Your task to perform on an android device: choose inbox layout in the gmail app Image 0: 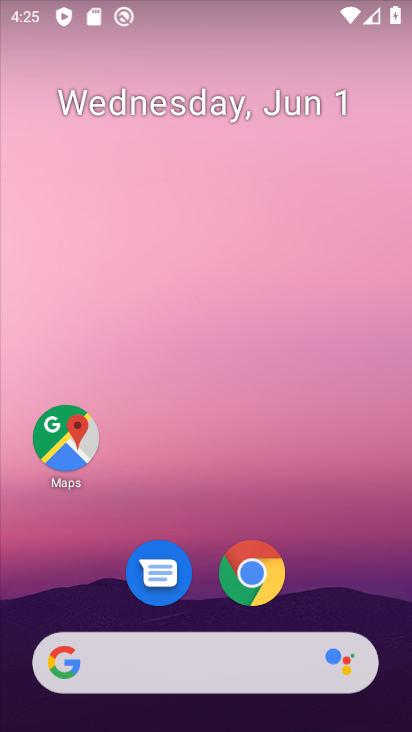
Step 0: drag from (107, 597) to (211, 166)
Your task to perform on an android device: choose inbox layout in the gmail app Image 1: 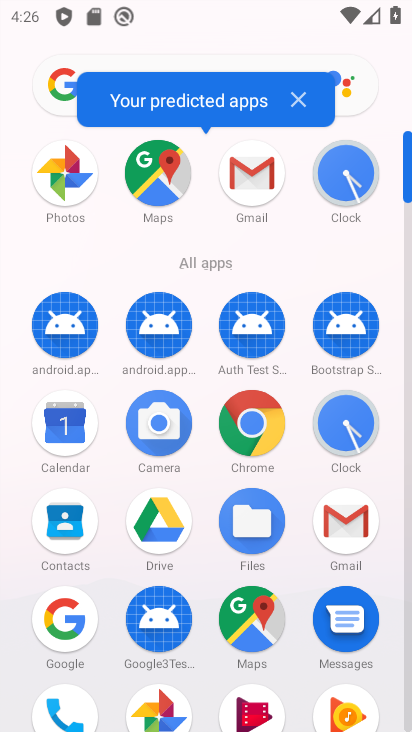
Step 1: click (350, 535)
Your task to perform on an android device: choose inbox layout in the gmail app Image 2: 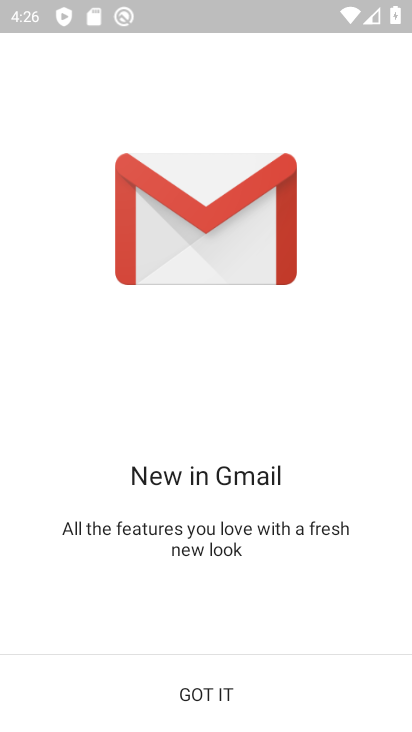
Step 2: click (262, 705)
Your task to perform on an android device: choose inbox layout in the gmail app Image 3: 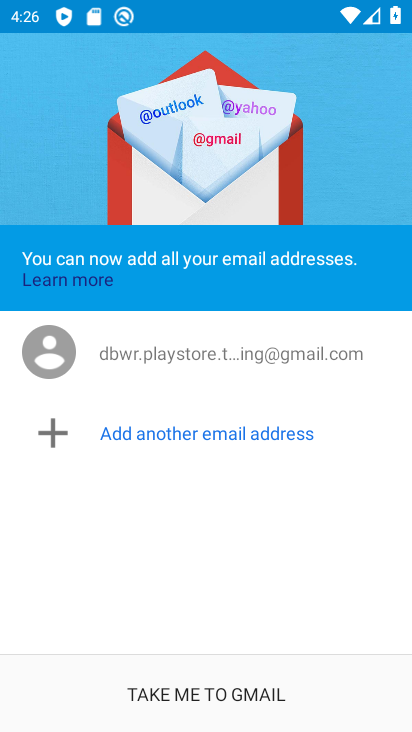
Step 3: click (262, 704)
Your task to perform on an android device: choose inbox layout in the gmail app Image 4: 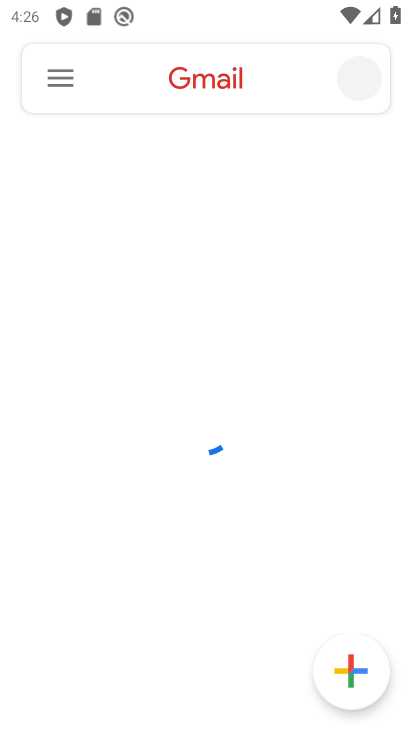
Step 4: click (69, 94)
Your task to perform on an android device: choose inbox layout in the gmail app Image 5: 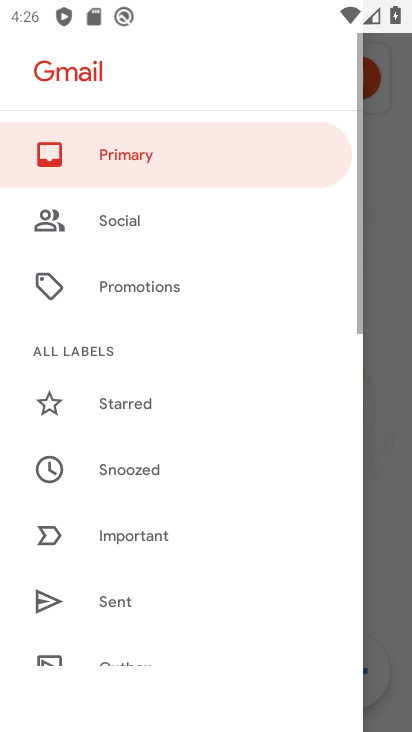
Step 5: drag from (158, 474) to (275, 148)
Your task to perform on an android device: choose inbox layout in the gmail app Image 6: 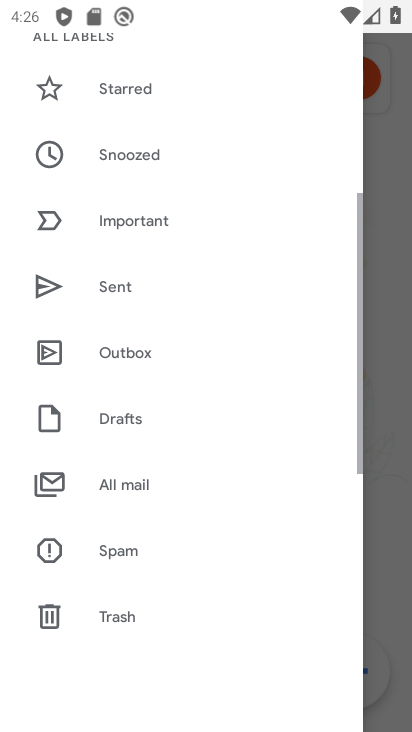
Step 6: drag from (182, 604) to (287, 170)
Your task to perform on an android device: choose inbox layout in the gmail app Image 7: 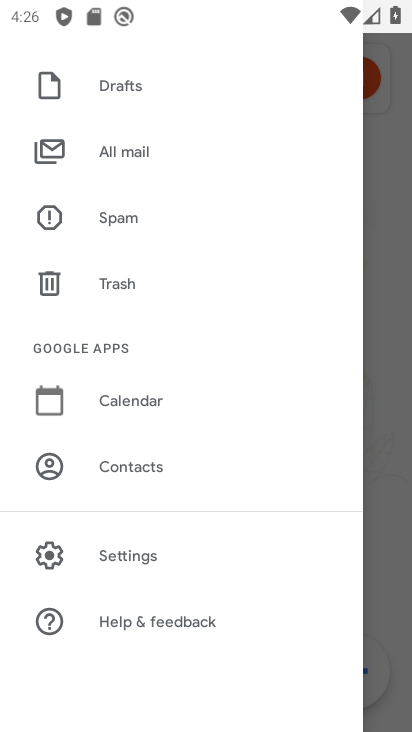
Step 7: click (159, 568)
Your task to perform on an android device: choose inbox layout in the gmail app Image 8: 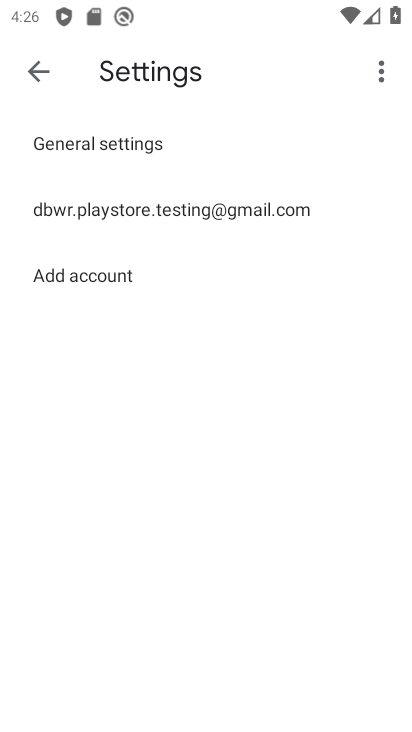
Step 8: click (274, 217)
Your task to perform on an android device: choose inbox layout in the gmail app Image 9: 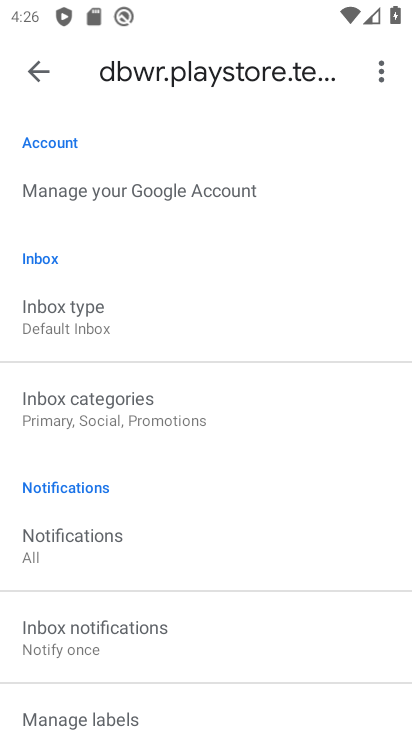
Step 9: drag from (95, 645) to (265, 267)
Your task to perform on an android device: choose inbox layout in the gmail app Image 10: 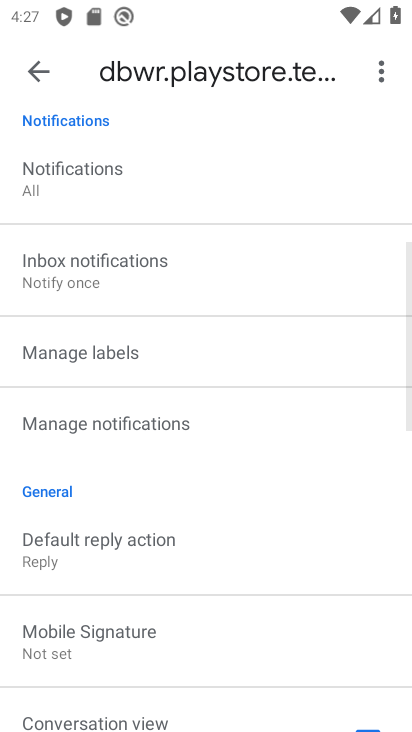
Step 10: drag from (195, 671) to (299, 298)
Your task to perform on an android device: choose inbox layout in the gmail app Image 11: 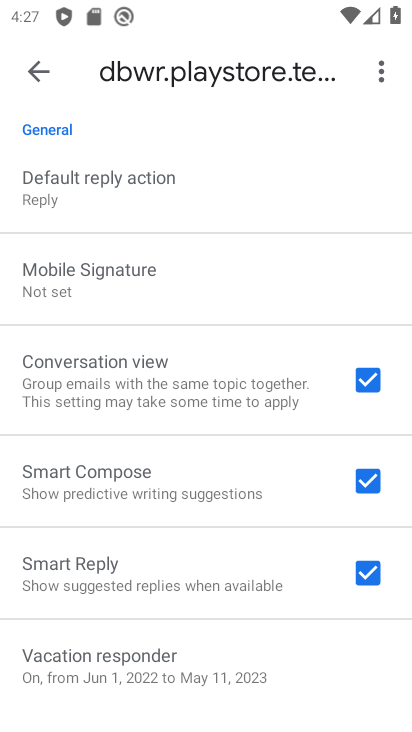
Step 11: drag from (230, 261) to (207, 686)
Your task to perform on an android device: choose inbox layout in the gmail app Image 12: 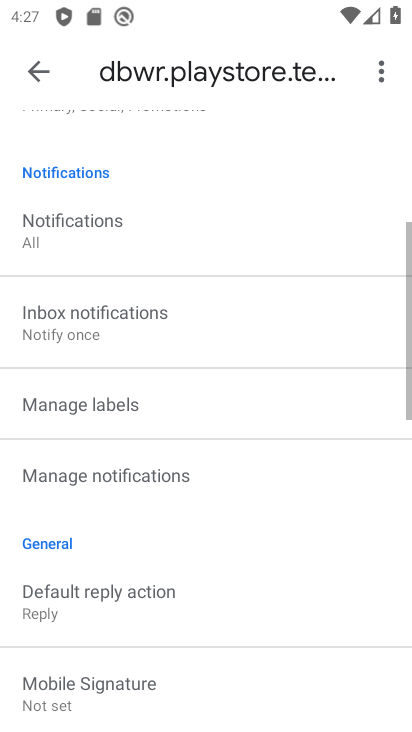
Step 12: drag from (189, 173) to (174, 640)
Your task to perform on an android device: choose inbox layout in the gmail app Image 13: 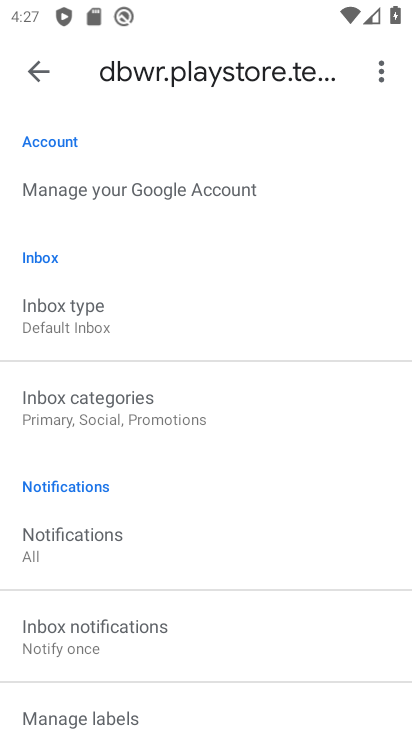
Step 13: click (159, 301)
Your task to perform on an android device: choose inbox layout in the gmail app Image 14: 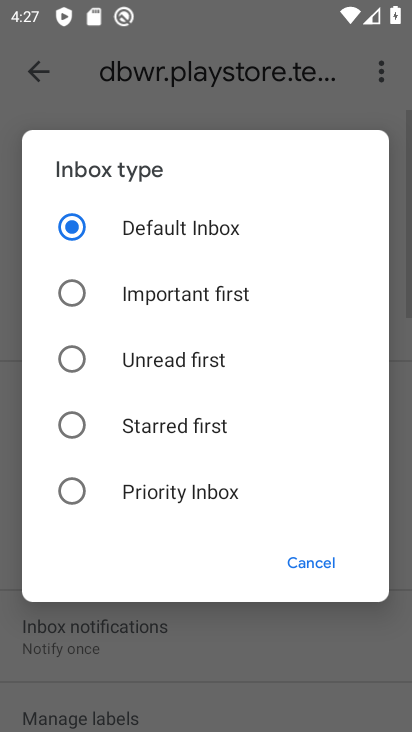
Step 14: click (199, 489)
Your task to perform on an android device: choose inbox layout in the gmail app Image 15: 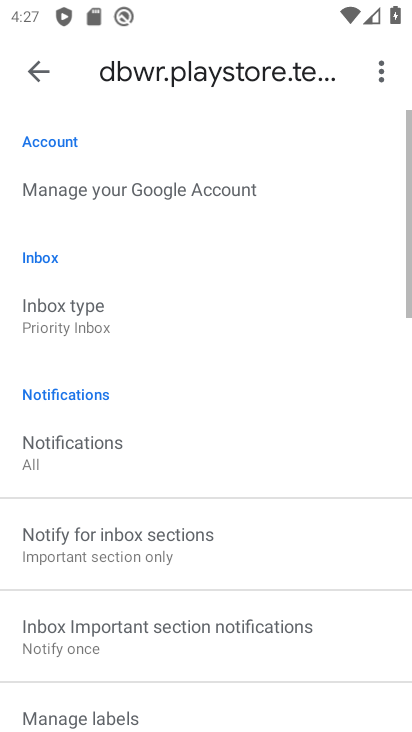
Step 15: task complete